Your task to perform on an android device: Open calendar and show me the fourth week of next month Image 0: 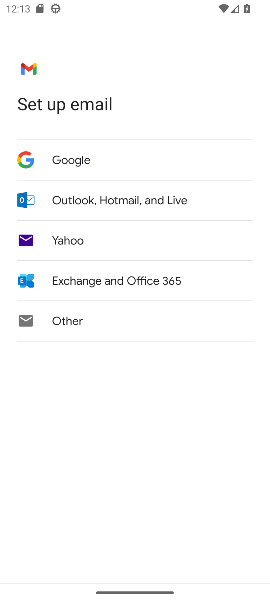
Step 0: press home button
Your task to perform on an android device: Open calendar and show me the fourth week of next month Image 1: 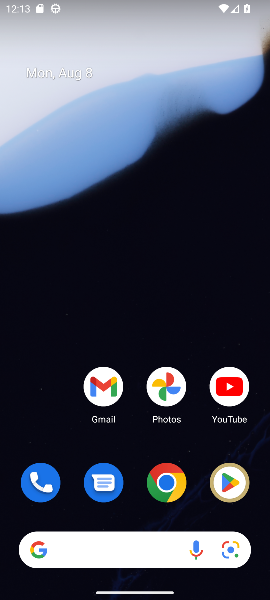
Step 1: drag from (159, 534) to (263, 128)
Your task to perform on an android device: Open calendar and show me the fourth week of next month Image 2: 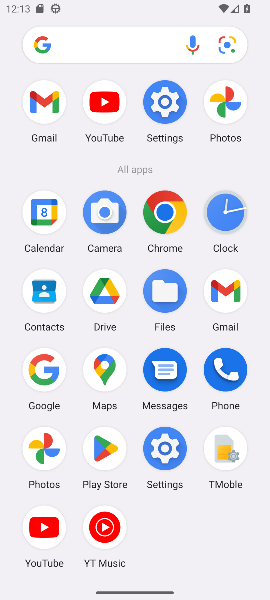
Step 2: click (45, 217)
Your task to perform on an android device: Open calendar and show me the fourth week of next month Image 3: 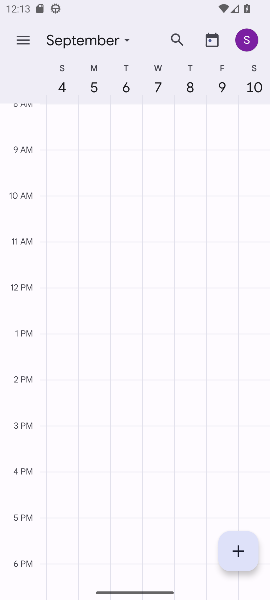
Step 3: task complete